Your task to perform on an android device: Show me popular games on the Play Store Image 0: 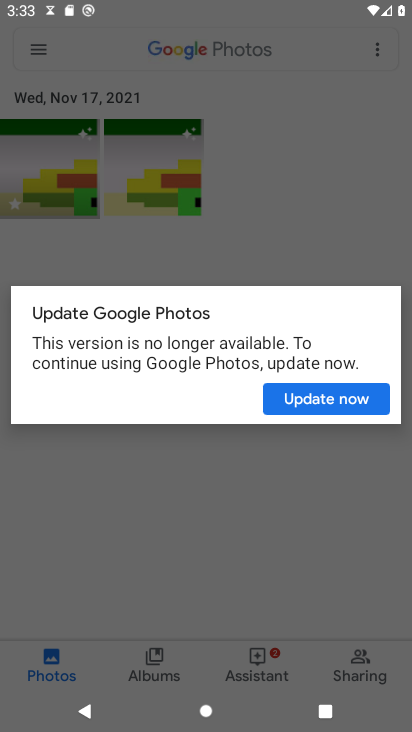
Step 0: press home button
Your task to perform on an android device: Show me popular games on the Play Store Image 1: 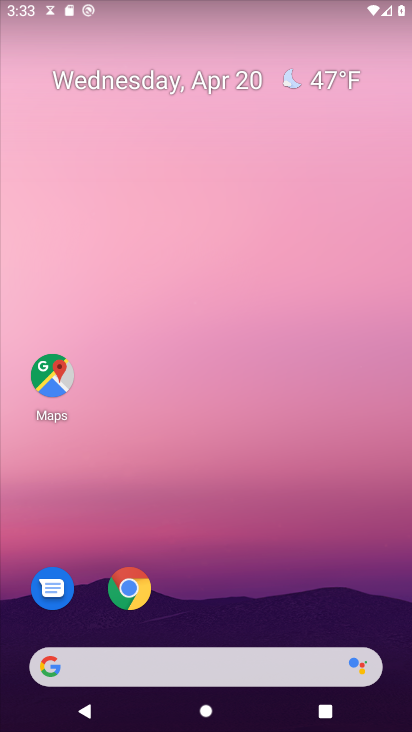
Step 1: drag from (208, 599) to (237, 66)
Your task to perform on an android device: Show me popular games on the Play Store Image 2: 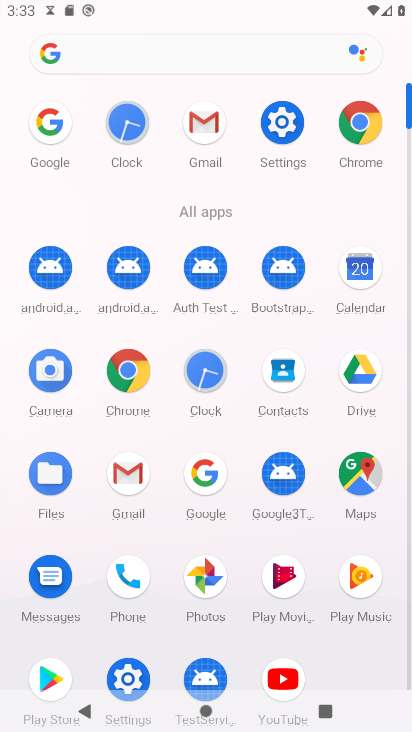
Step 2: click (45, 675)
Your task to perform on an android device: Show me popular games on the Play Store Image 3: 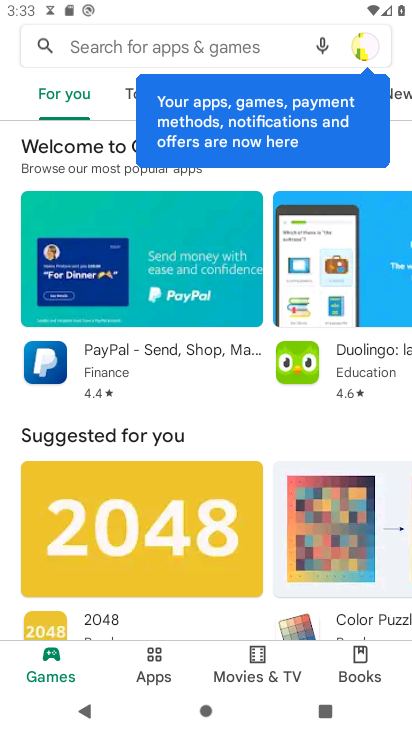
Step 3: click (154, 666)
Your task to perform on an android device: Show me popular games on the Play Store Image 4: 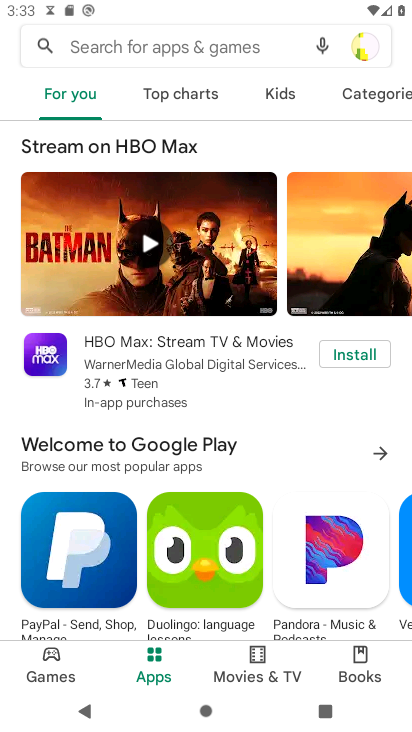
Step 4: click (366, 85)
Your task to perform on an android device: Show me popular games on the Play Store Image 5: 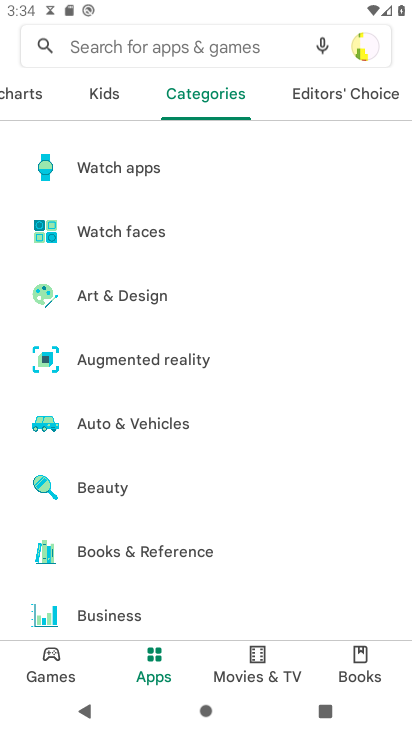
Step 5: drag from (143, 586) to (202, 276)
Your task to perform on an android device: Show me popular games on the Play Store Image 6: 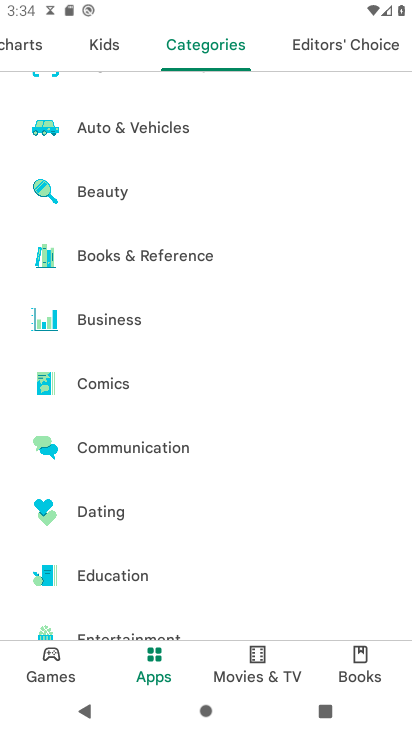
Step 6: drag from (204, 541) to (258, 239)
Your task to perform on an android device: Show me popular games on the Play Store Image 7: 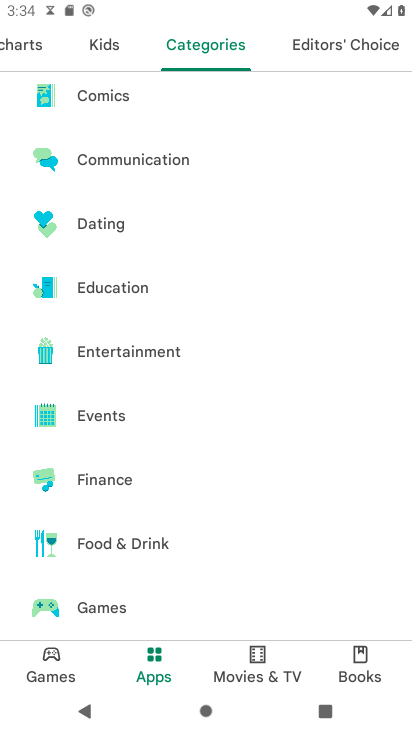
Step 7: drag from (205, 561) to (232, 305)
Your task to perform on an android device: Show me popular games on the Play Store Image 8: 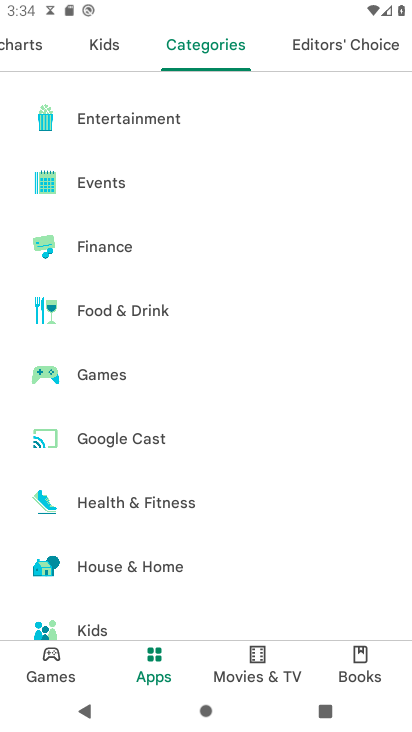
Step 8: click (96, 374)
Your task to perform on an android device: Show me popular games on the Play Store Image 9: 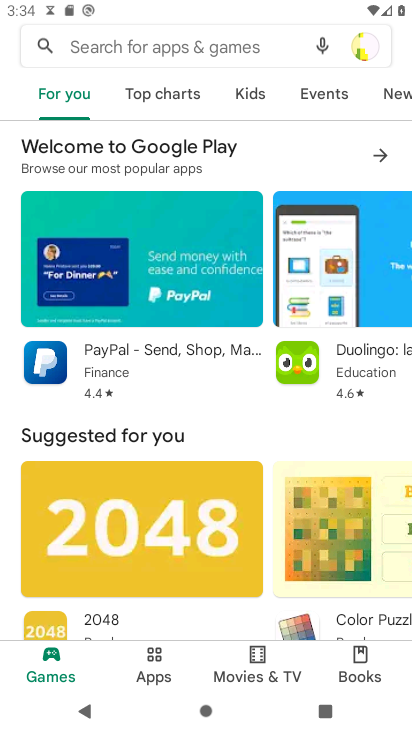
Step 9: task complete